Your task to perform on an android device: change the clock display to analog Image 0: 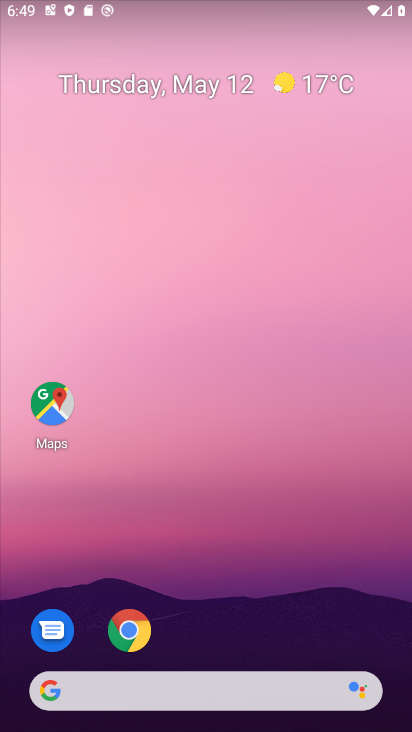
Step 0: drag from (333, 645) to (212, 131)
Your task to perform on an android device: change the clock display to analog Image 1: 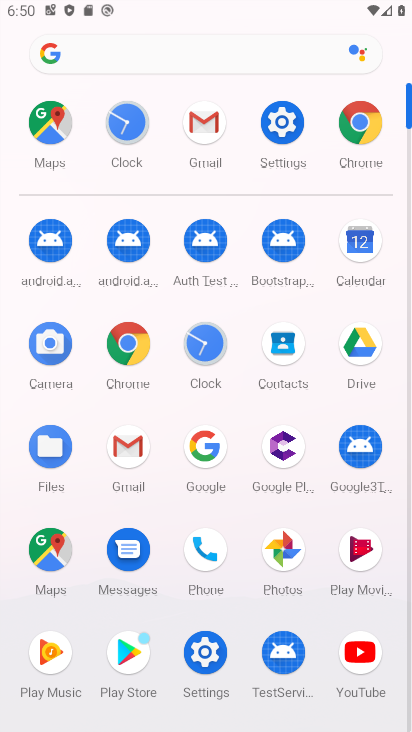
Step 1: click (194, 338)
Your task to perform on an android device: change the clock display to analog Image 2: 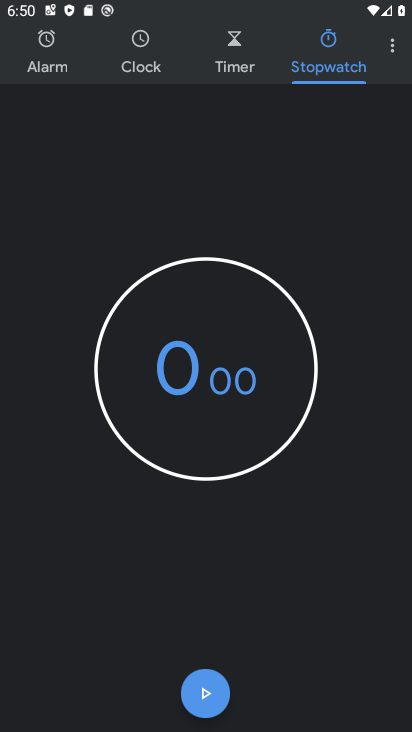
Step 2: click (383, 36)
Your task to perform on an android device: change the clock display to analog Image 3: 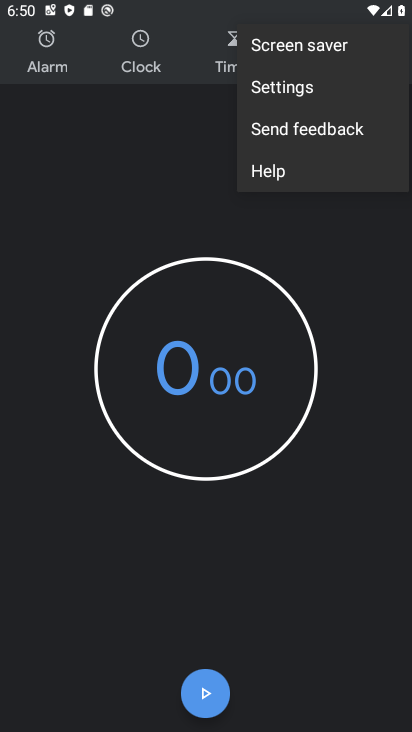
Step 3: click (316, 80)
Your task to perform on an android device: change the clock display to analog Image 4: 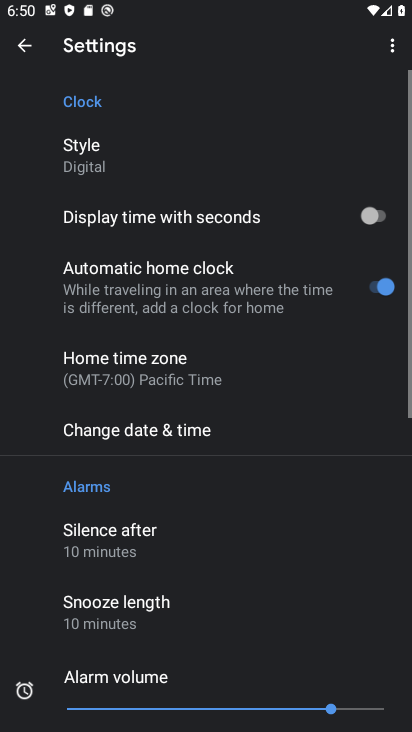
Step 4: click (272, 160)
Your task to perform on an android device: change the clock display to analog Image 5: 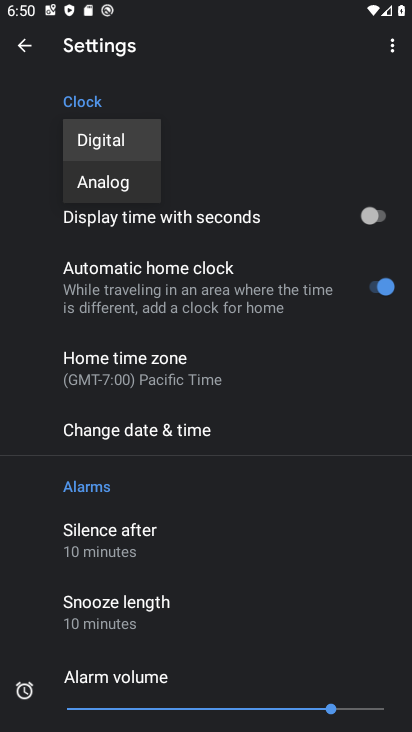
Step 5: click (109, 186)
Your task to perform on an android device: change the clock display to analog Image 6: 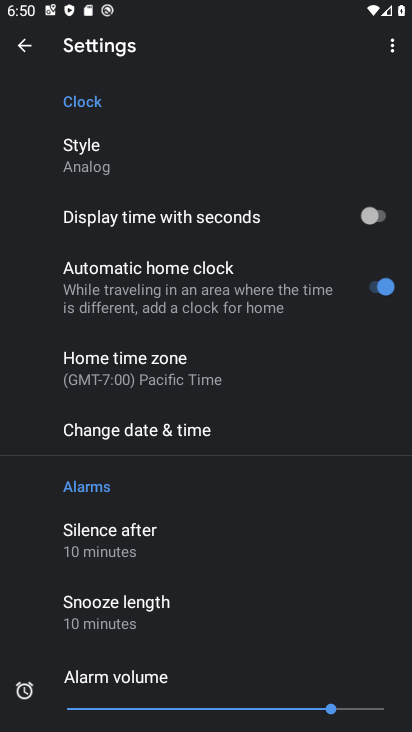
Step 6: task complete